Your task to perform on an android device: Open battery settings Image 0: 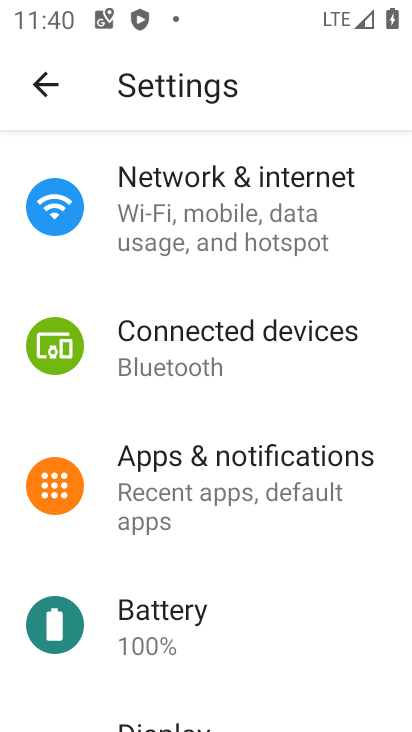
Step 0: press home button
Your task to perform on an android device: Open battery settings Image 1: 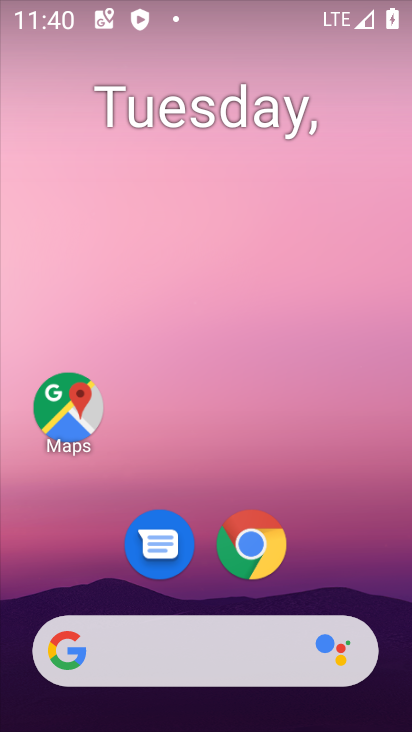
Step 1: drag from (401, 628) to (310, 29)
Your task to perform on an android device: Open battery settings Image 2: 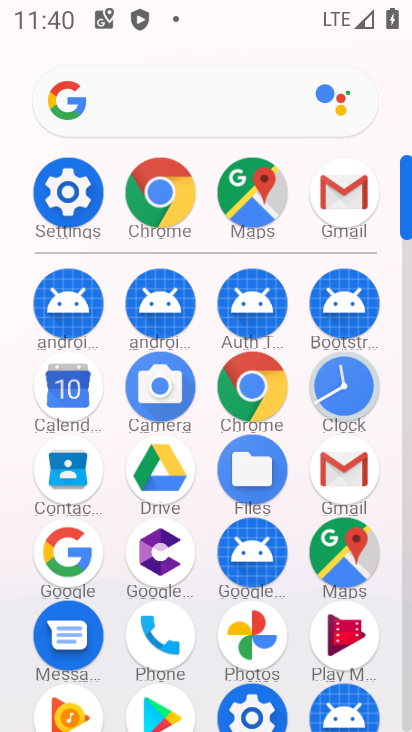
Step 2: click (310, 29)
Your task to perform on an android device: Open battery settings Image 3: 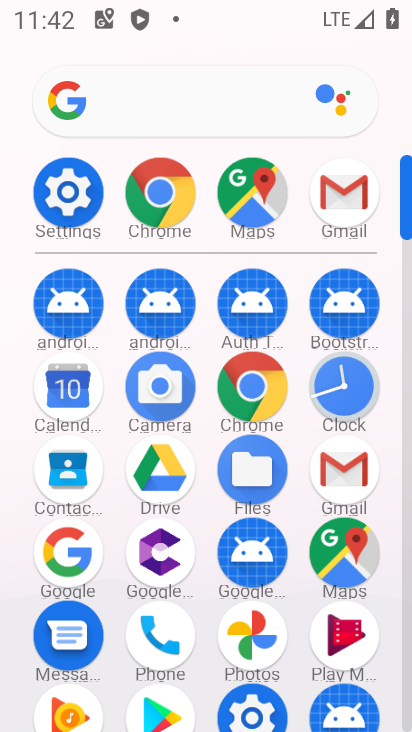
Step 3: click (264, 711)
Your task to perform on an android device: Open battery settings Image 4: 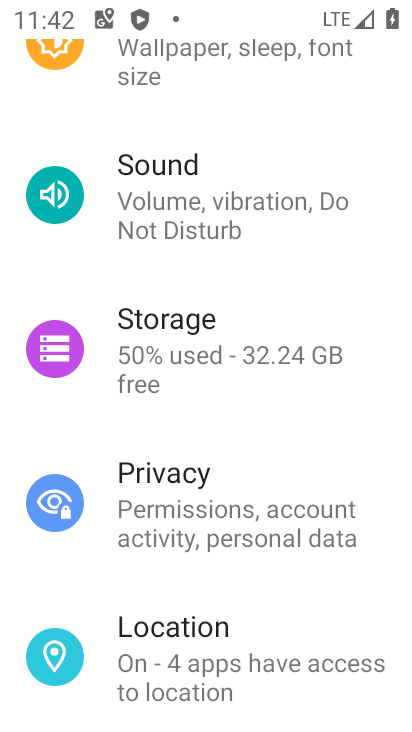
Step 4: drag from (141, 235) to (171, 611)
Your task to perform on an android device: Open battery settings Image 5: 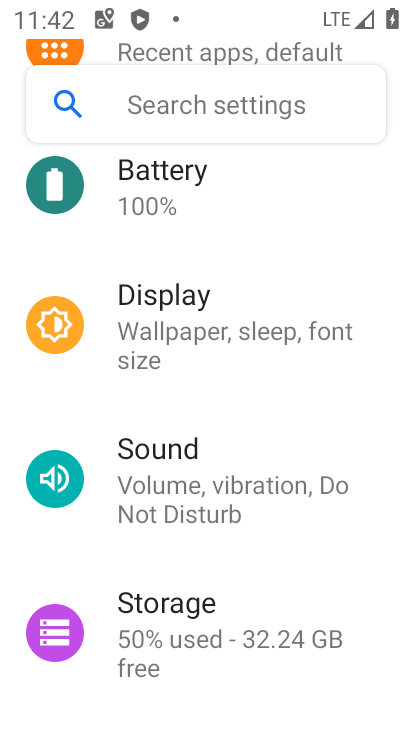
Step 5: click (172, 198)
Your task to perform on an android device: Open battery settings Image 6: 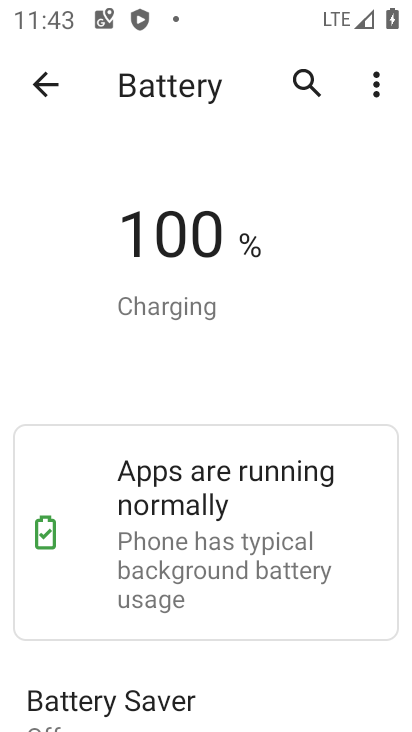
Step 6: task complete